Your task to perform on an android device: toggle translation in the chrome app Image 0: 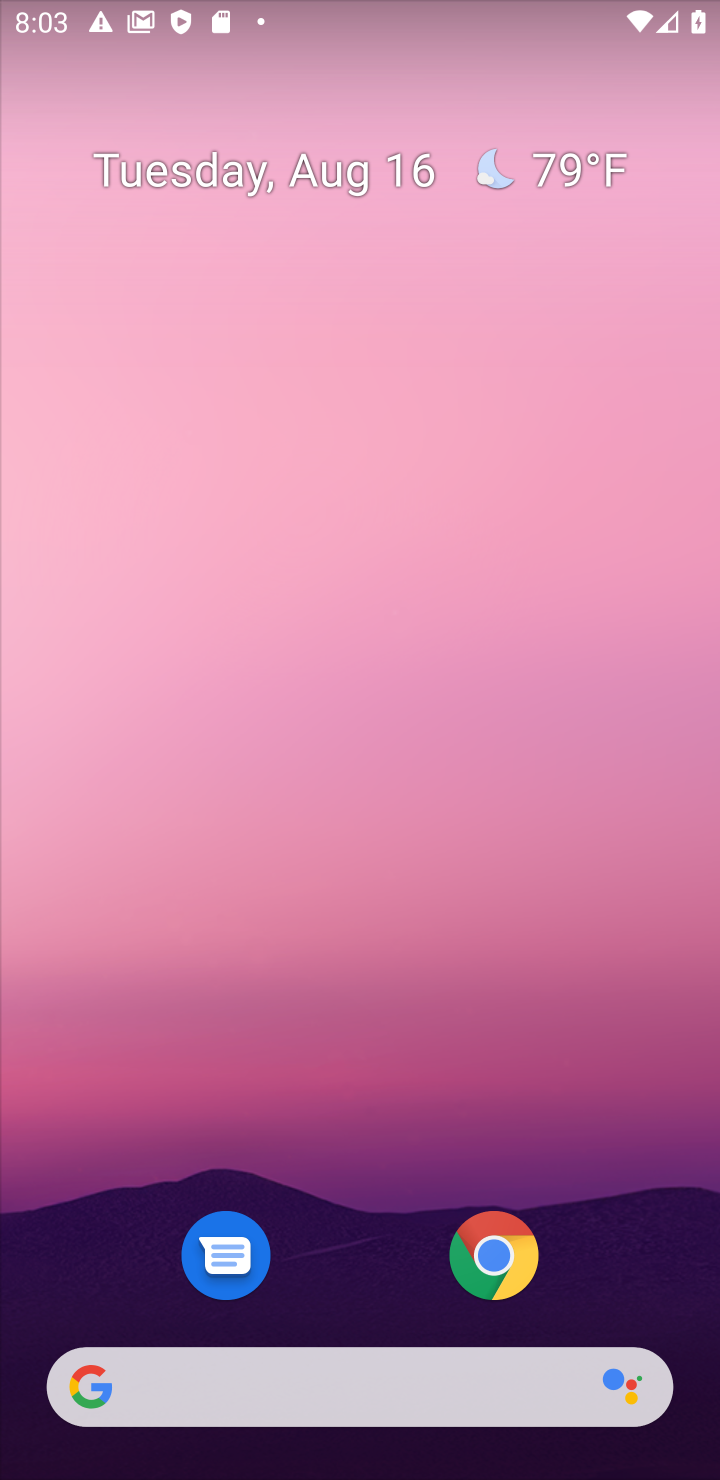
Step 0: click (494, 1263)
Your task to perform on an android device: toggle translation in the chrome app Image 1: 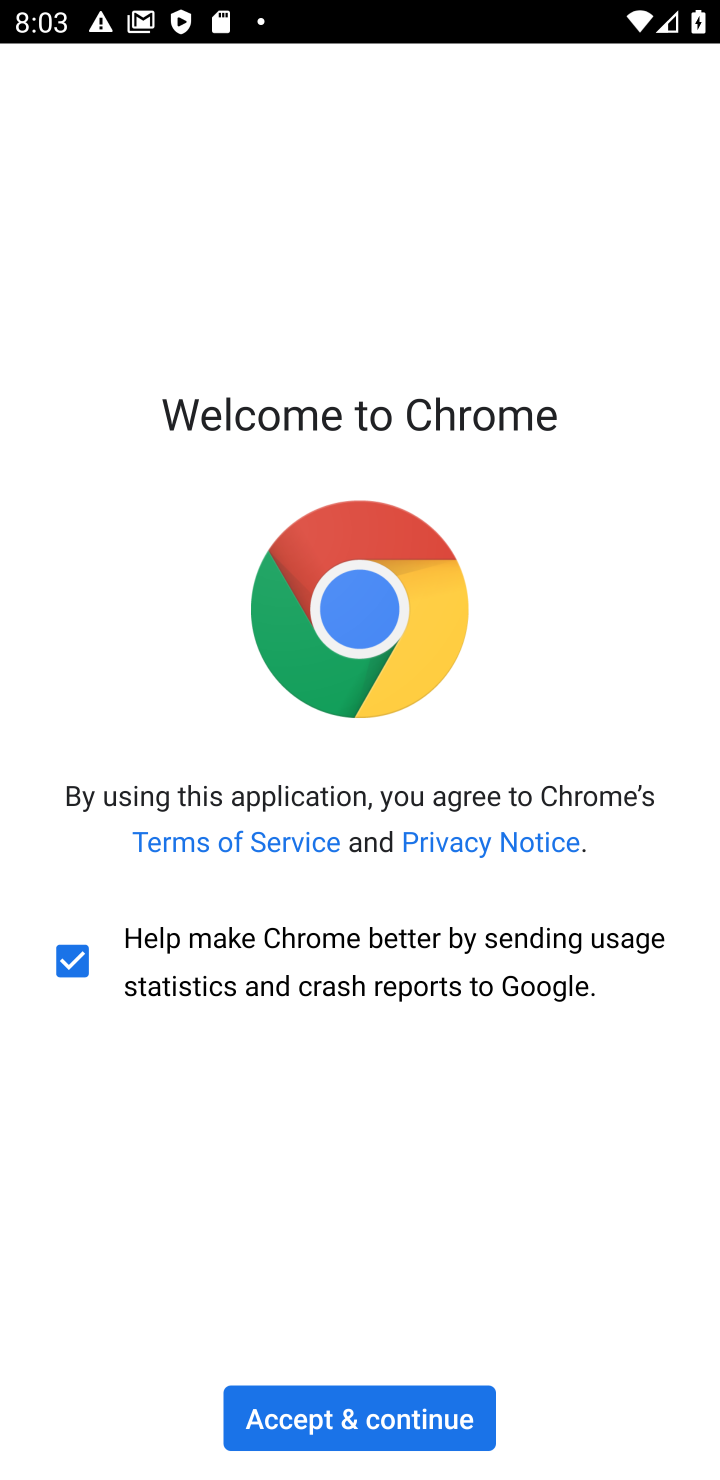
Step 1: click (412, 1397)
Your task to perform on an android device: toggle translation in the chrome app Image 2: 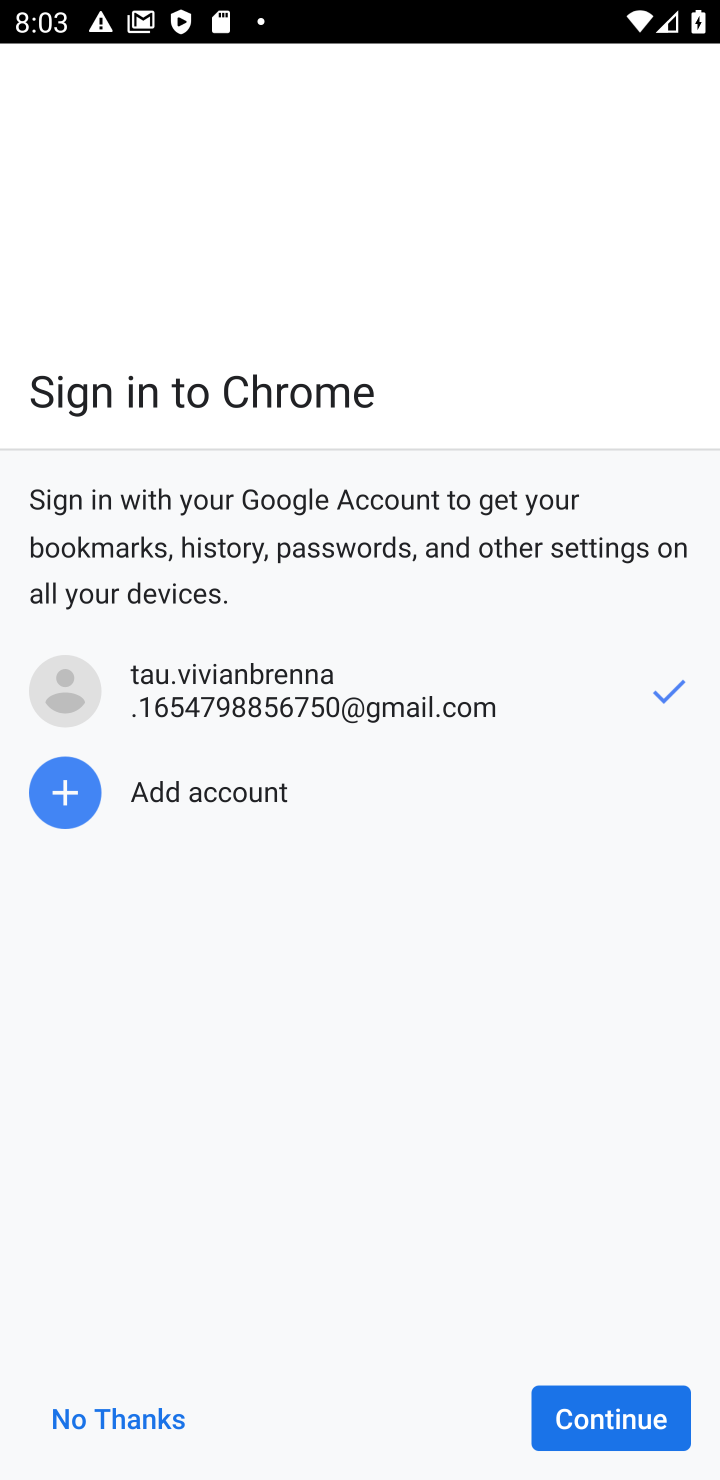
Step 2: click (552, 1409)
Your task to perform on an android device: toggle translation in the chrome app Image 3: 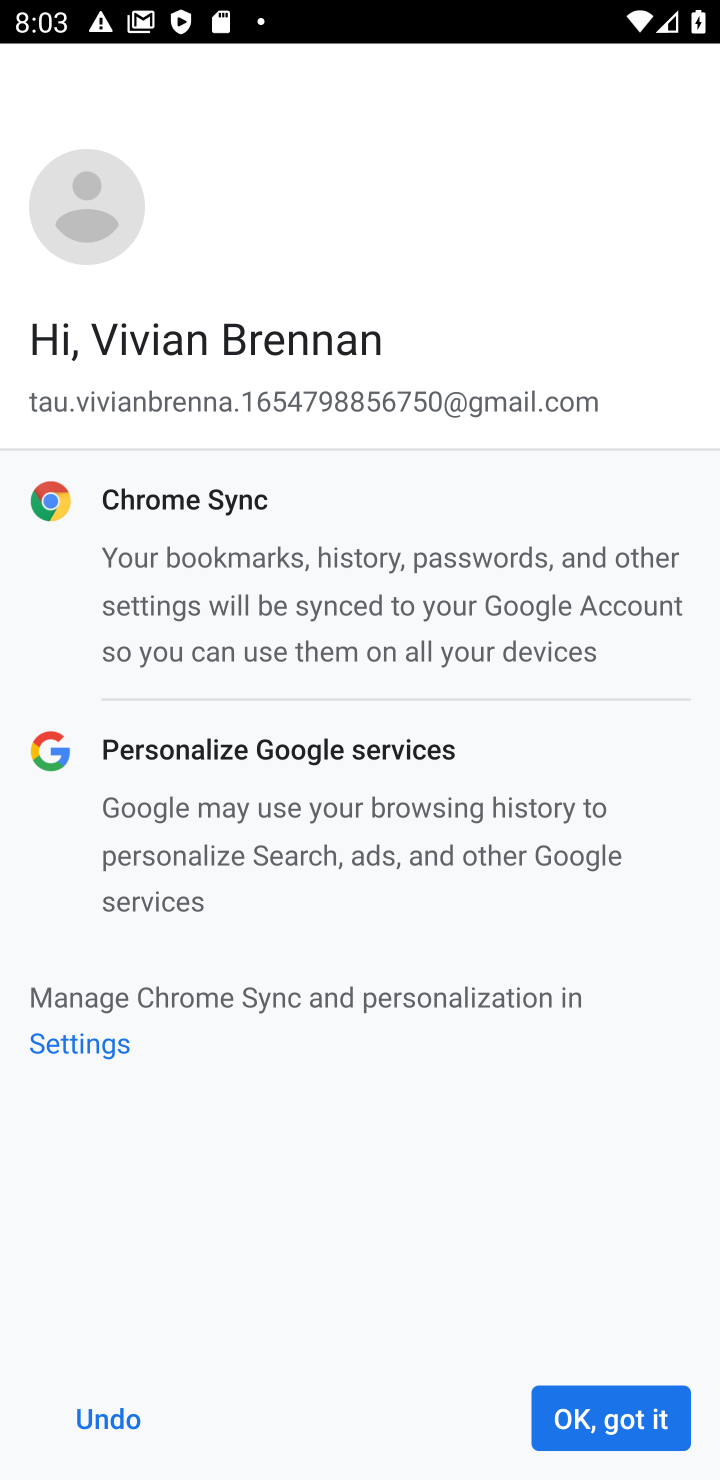
Step 3: click (552, 1409)
Your task to perform on an android device: toggle translation in the chrome app Image 4: 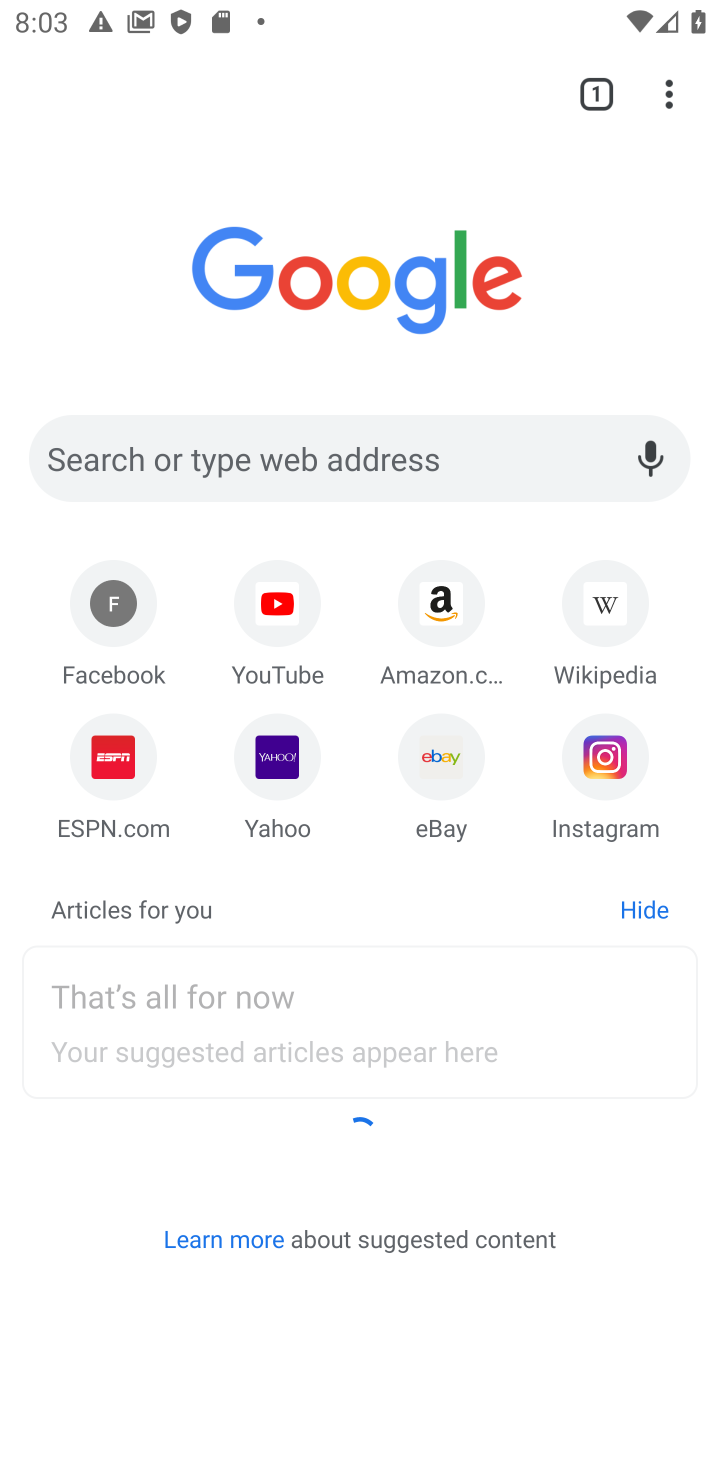
Step 4: drag from (662, 107) to (390, 792)
Your task to perform on an android device: toggle translation in the chrome app Image 5: 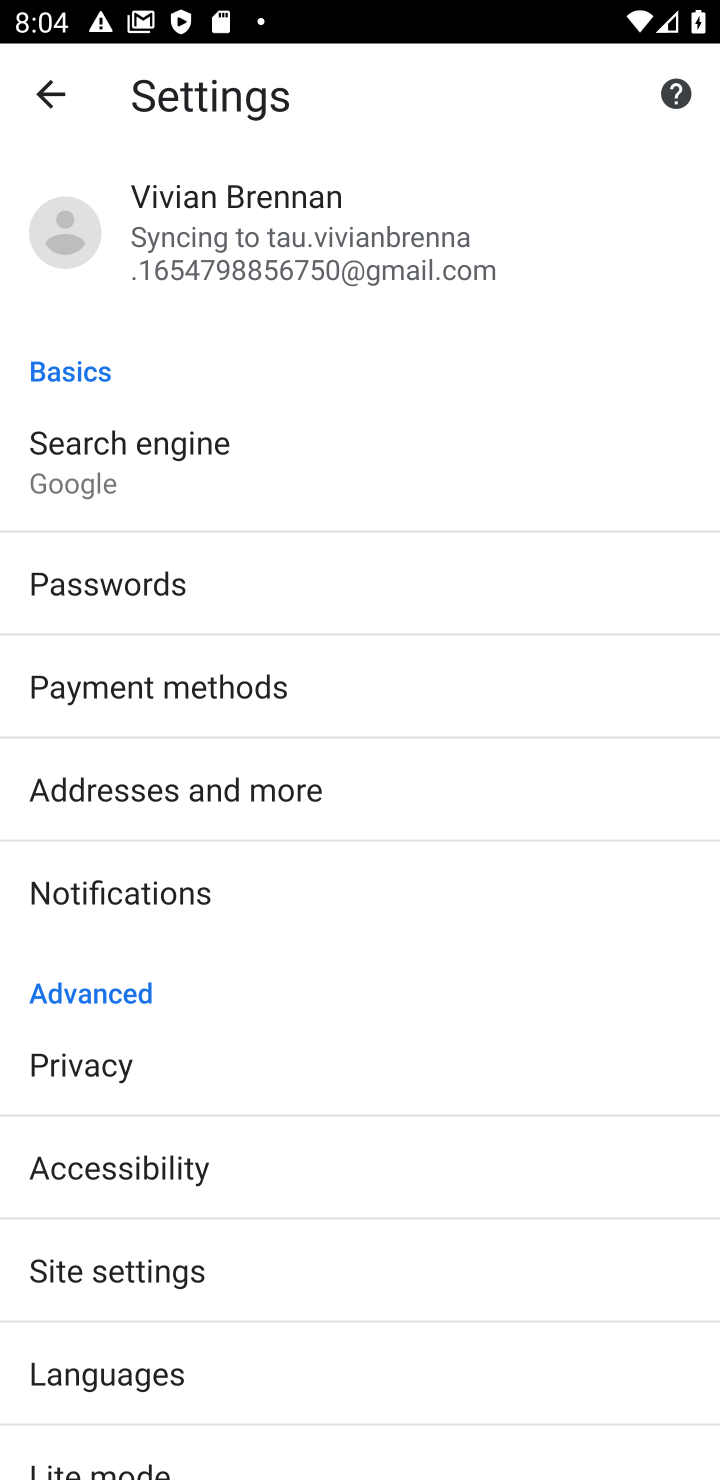
Step 5: click (176, 1371)
Your task to perform on an android device: toggle translation in the chrome app Image 6: 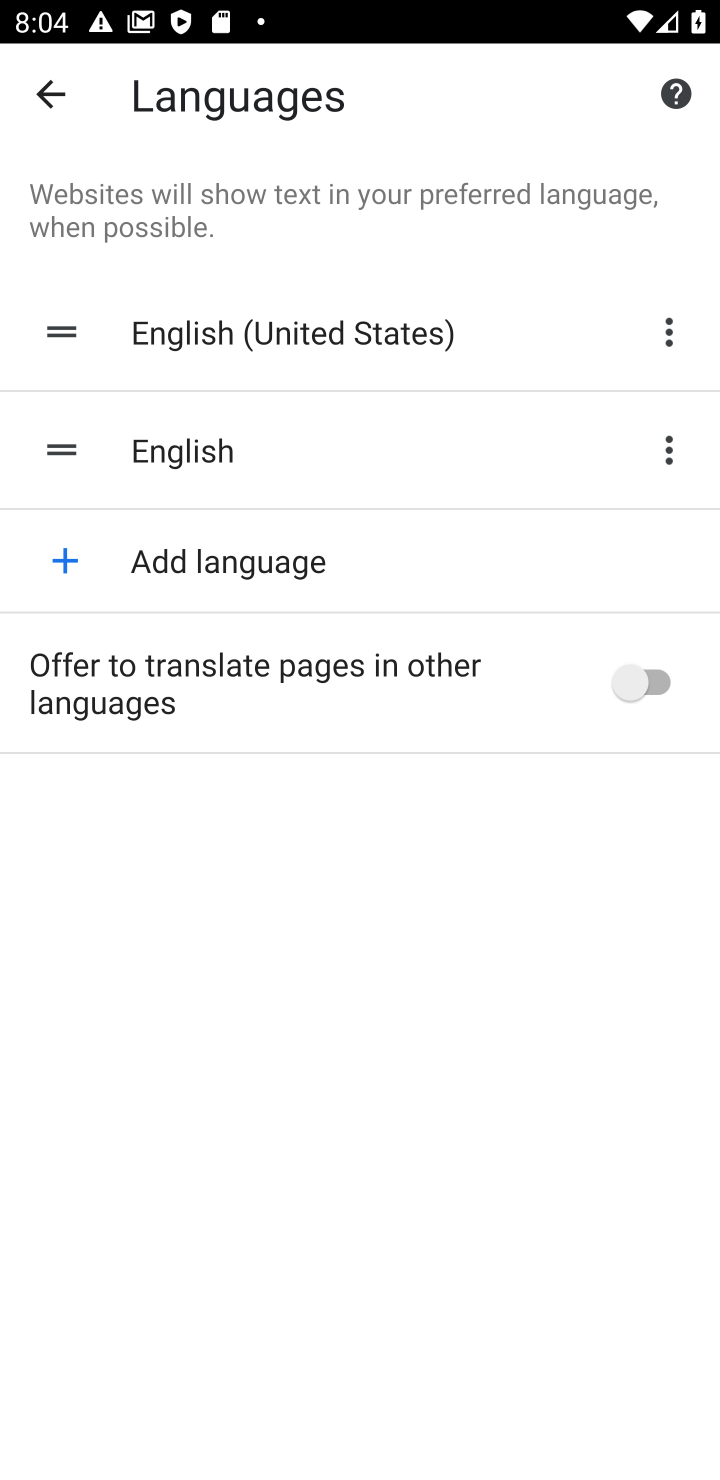
Step 6: click (632, 680)
Your task to perform on an android device: toggle translation in the chrome app Image 7: 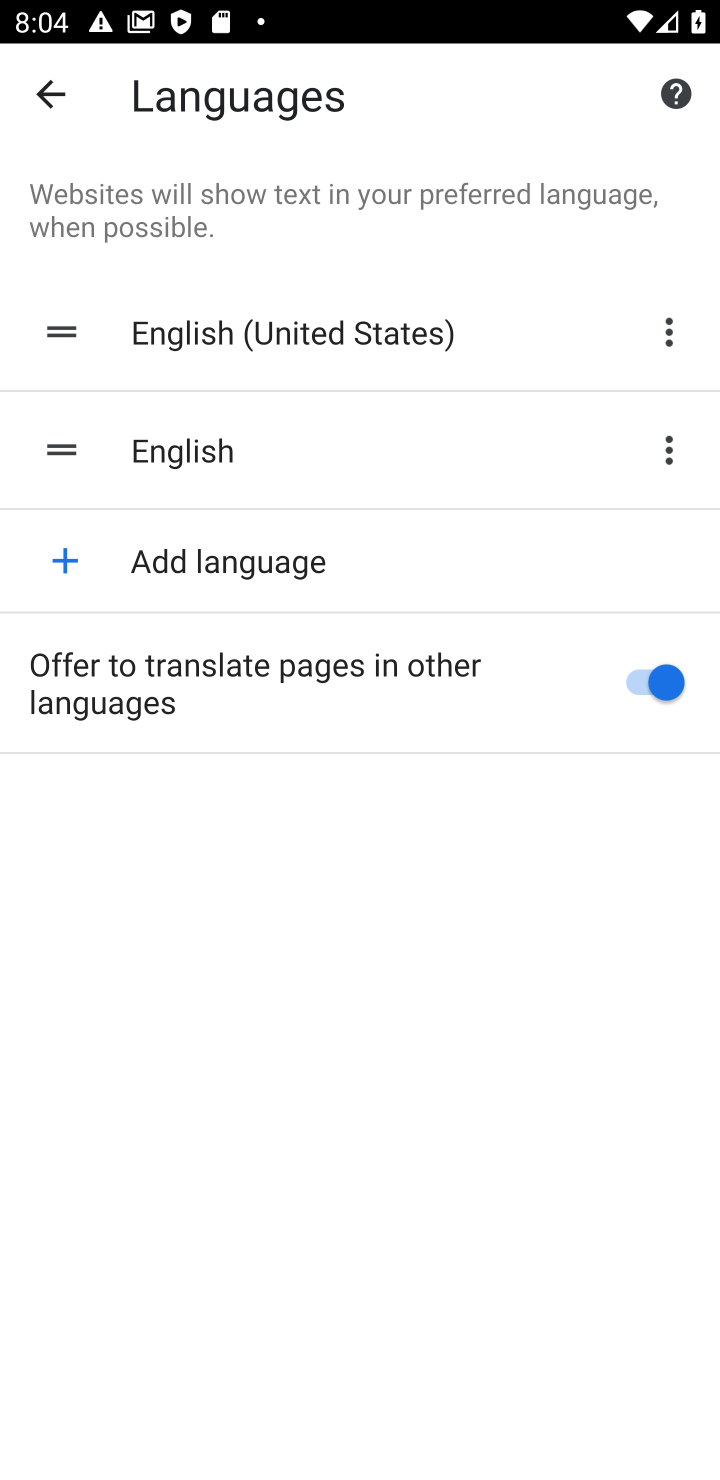
Step 7: task complete